Your task to perform on an android device: open a bookmark in the chrome app Image 0: 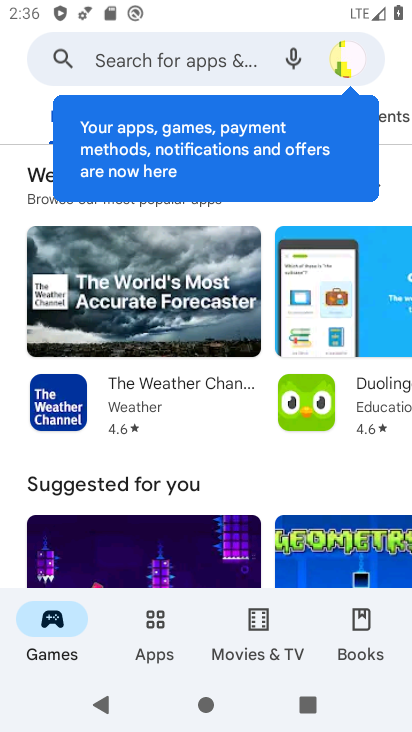
Step 0: press home button
Your task to perform on an android device: open a bookmark in the chrome app Image 1: 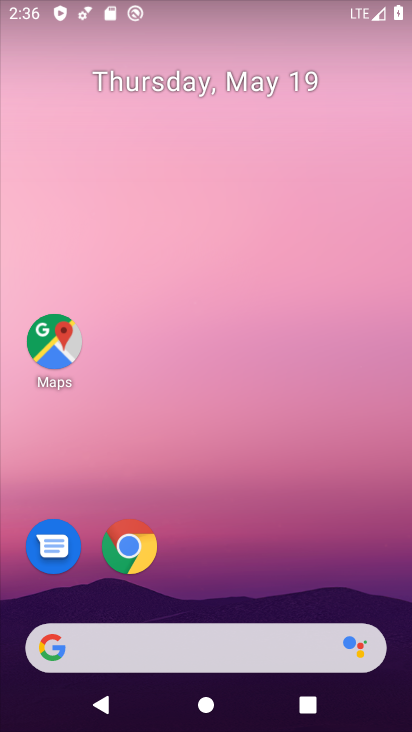
Step 1: click (129, 553)
Your task to perform on an android device: open a bookmark in the chrome app Image 2: 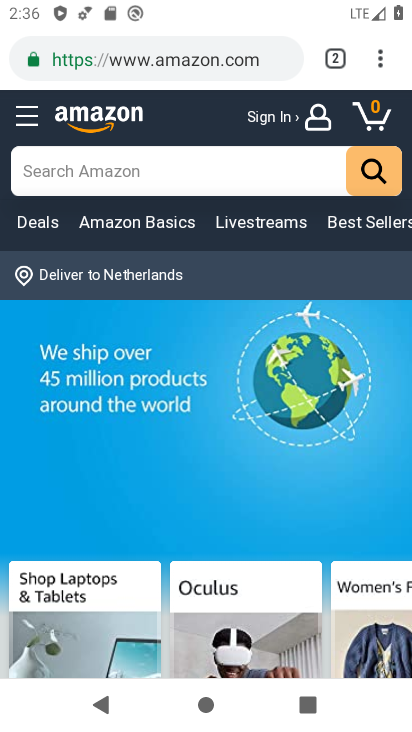
Step 2: task complete